Your task to perform on an android device: Toggle the flashlight Image 0: 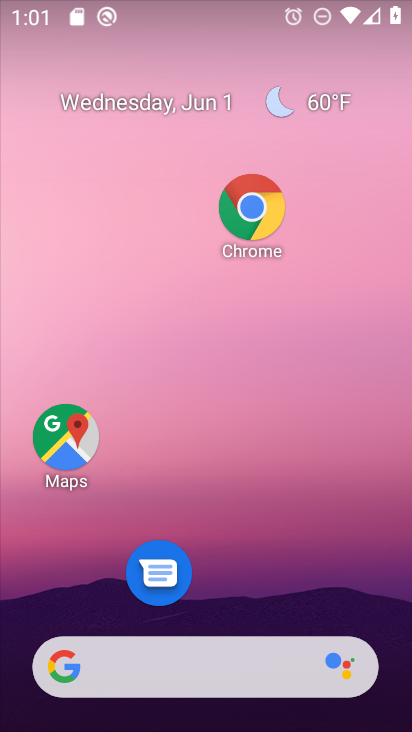
Step 0: drag from (203, 604) to (210, 165)
Your task to perform on an android device: Toggle the flashlight Image 1: 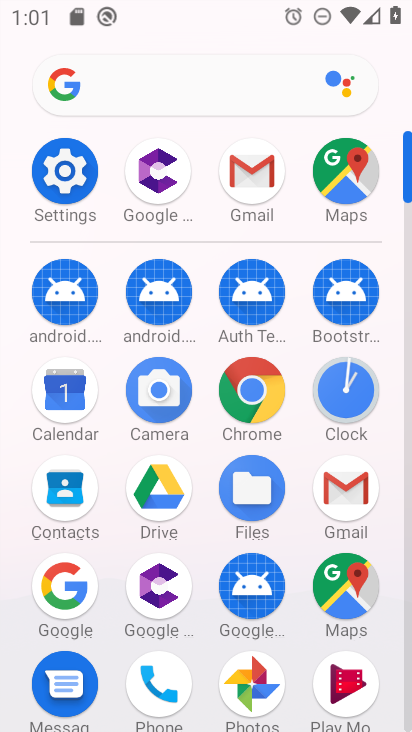
Step 1: click (81, 169)
Your task to perform on an android device: Toggle the flashlight Image 2: 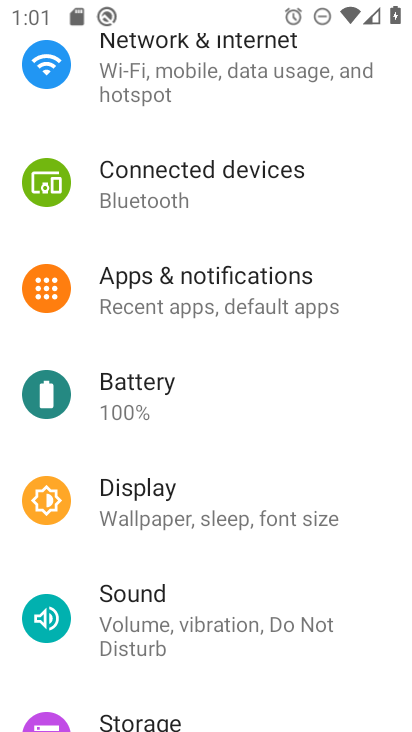
Step 2: task complete